Your task to perform on an android device: allow notifications from all sites in the chrome app Image 0: 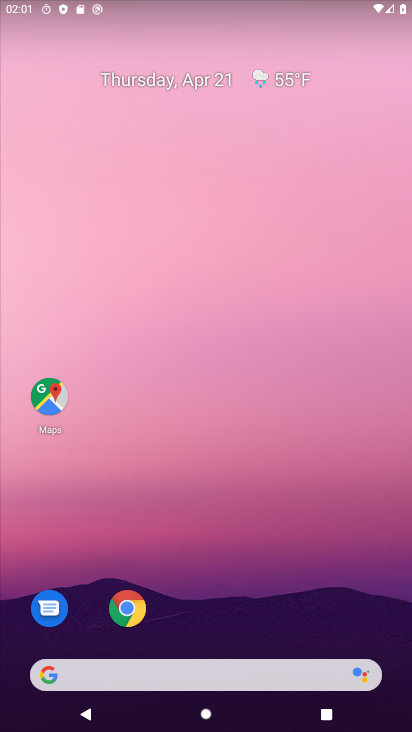
Step 0: click (126, 608)
Your task to perform on an android device: allow notifications from all sites in the chrome app Image 1: 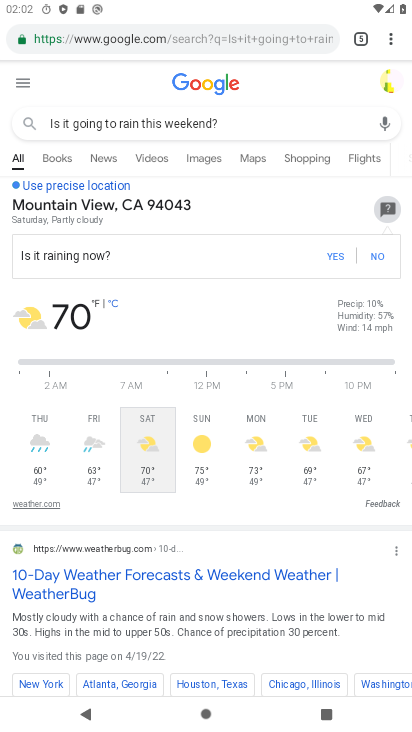
Step 1: drag from (388, 41) to (254, 471)
Your task to perform on an android device: allow notifications from all sites in the chrome app Image 2: 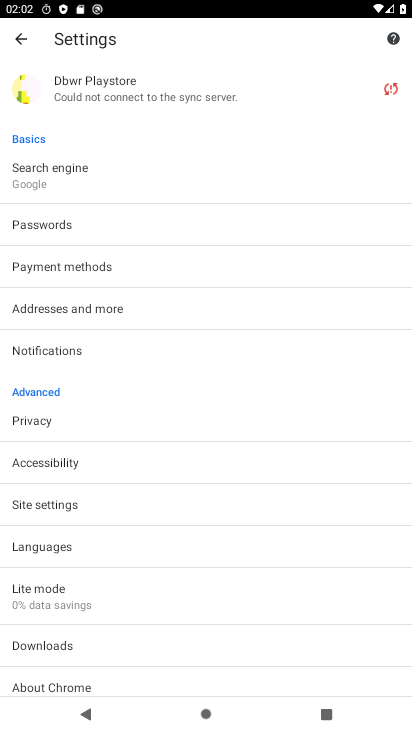
Step 2: click (33, 347)
Your task to perform on an android device: allow notifications from all sites in the chrome app Image 3: 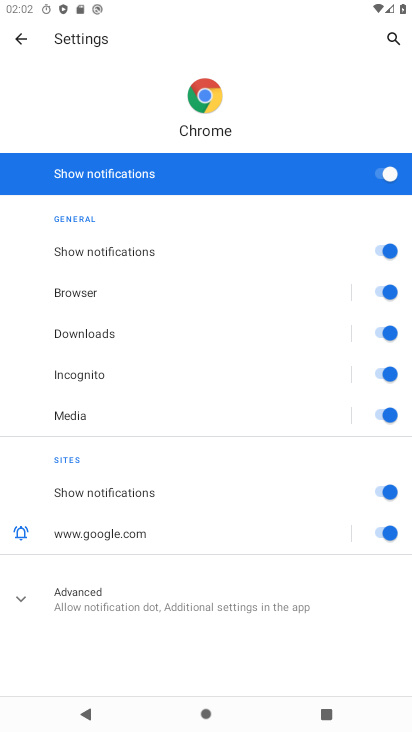
Step 3: task complete